Your task to perform on an android device: check the backup settings in the google photos Image 0: 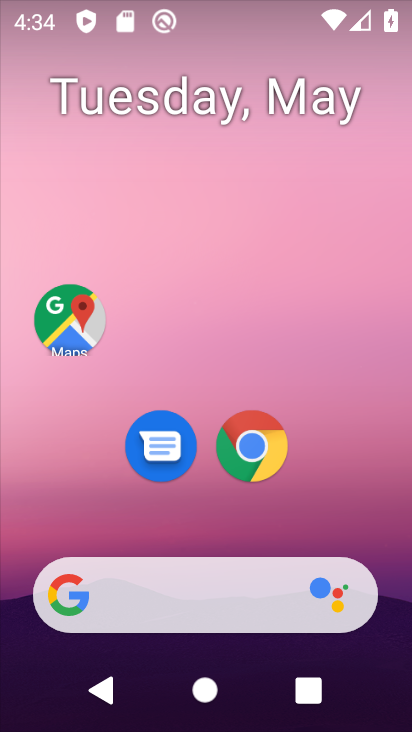
Step 0: drag from (246, 503) to (143, 43)
Your task to perform on an android device: check the backup settings in the google photos Image 1: 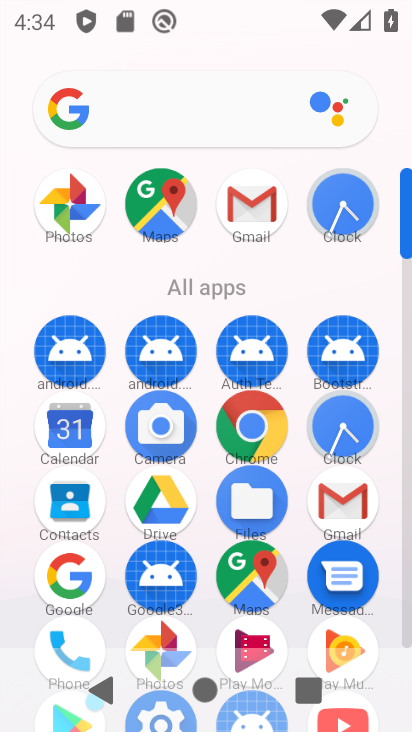
Step 1: click (400, 613)
Your task to perform on an android device: check the backup settings in the google photos Image 2: 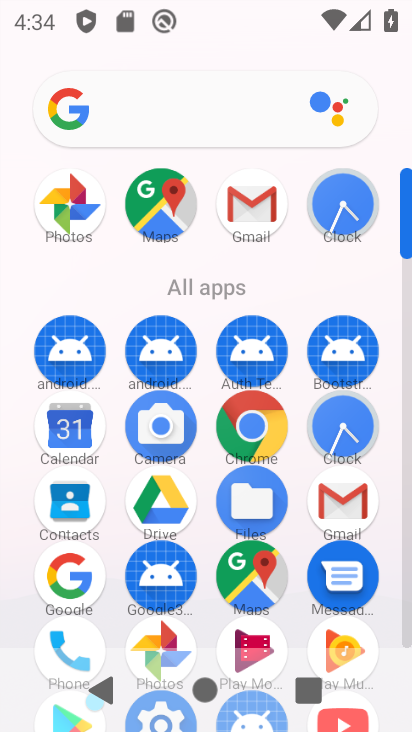
Step 2: click (410, 613)
Your task to perform on an android device: check the backup settings in the google photos Image 3: 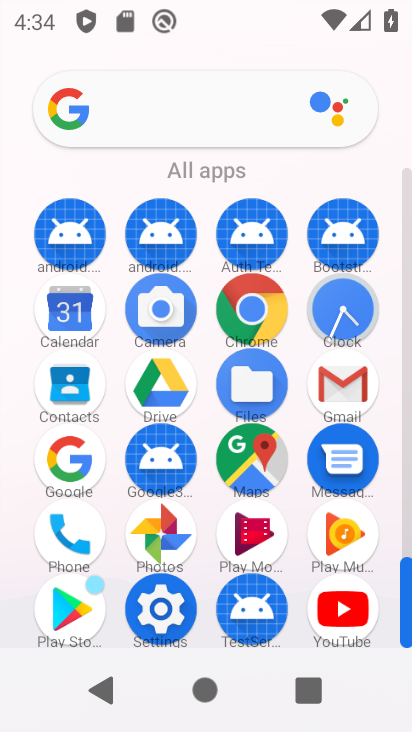
Step 3: click (166, 554)
Your task to perform on an android device: check the backup settings in the google photos Image 4: 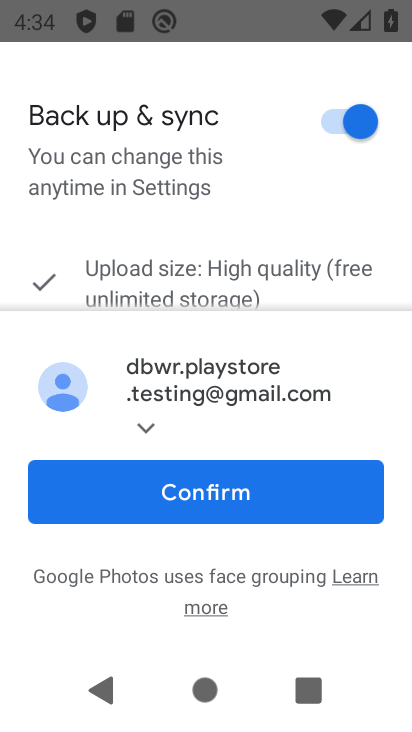
Step 4: click (169, 497)
Your task to perform on an android device: check the backup settings in the google photos Image 5: 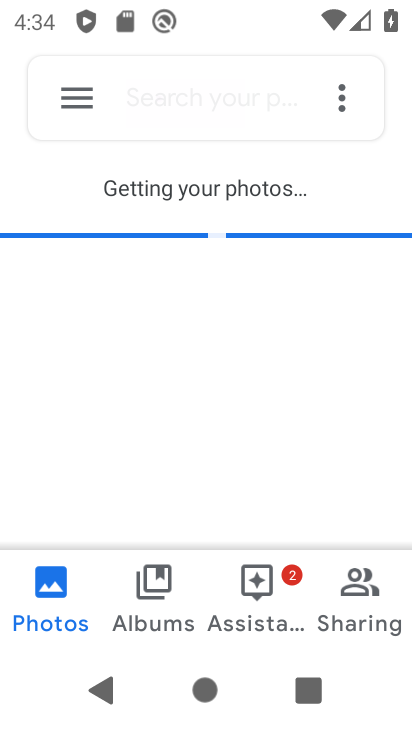
Step 5: click (90, 110)
Your task to perform on an android device: check the backup settings in the google photos Image 6: 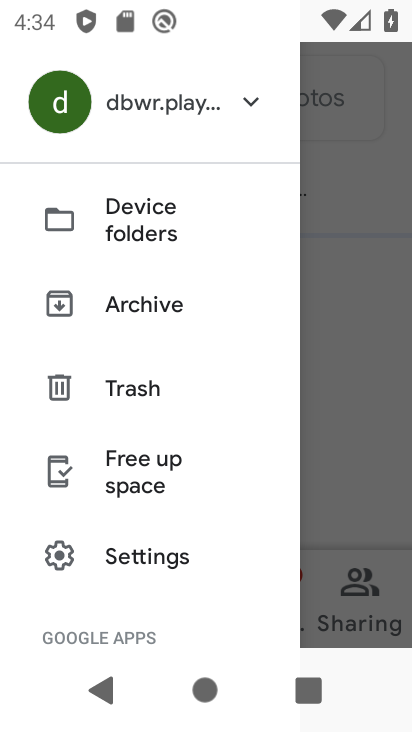
Step 6: click (144, 538)
Your task to perform on an android device: check the backup settings in the google photos Image 7: 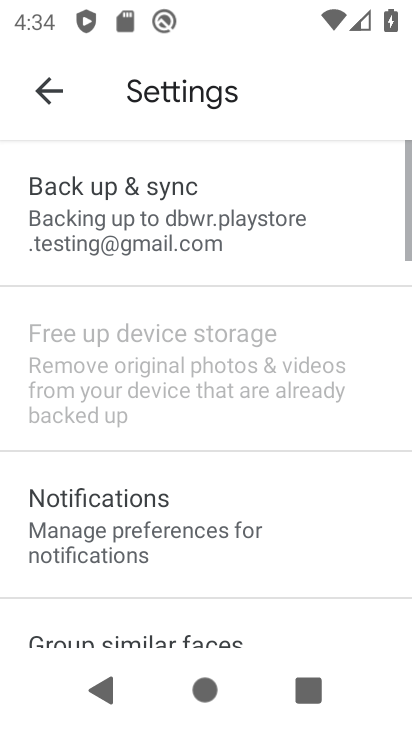
Step 7: click (179, 186)
Your task to perform on an android device: check the backup settings in the google photos Image 8: 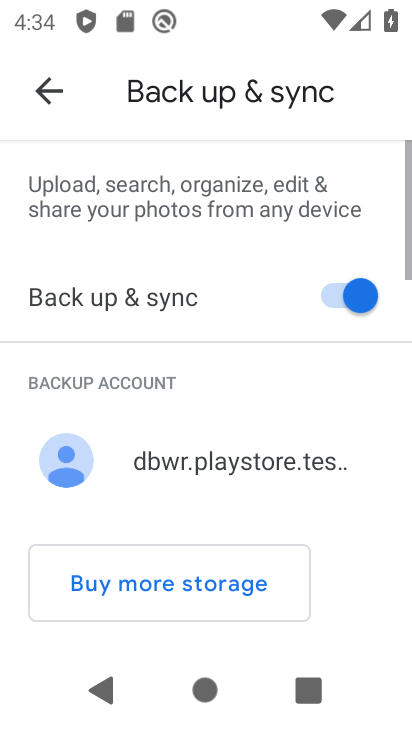
Step 8: drag from (137, 454) to (110, 129)
Your task to perform on an android device: check the backup settings in the google photos Image 9: 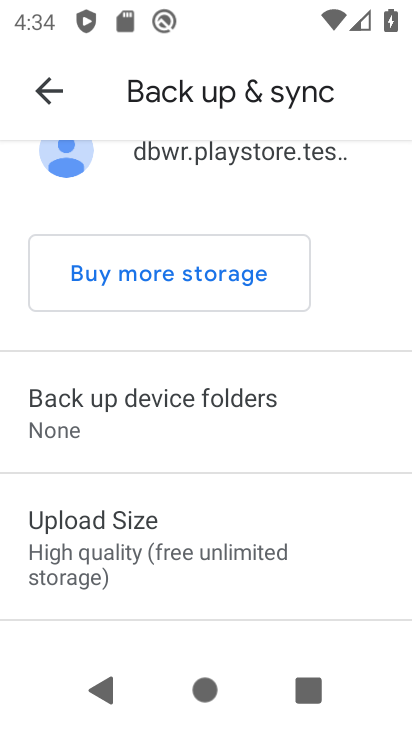
Step 9: click (195, 540)
Your task to perform on an android device: check the backup settings in the google photos Image 10: 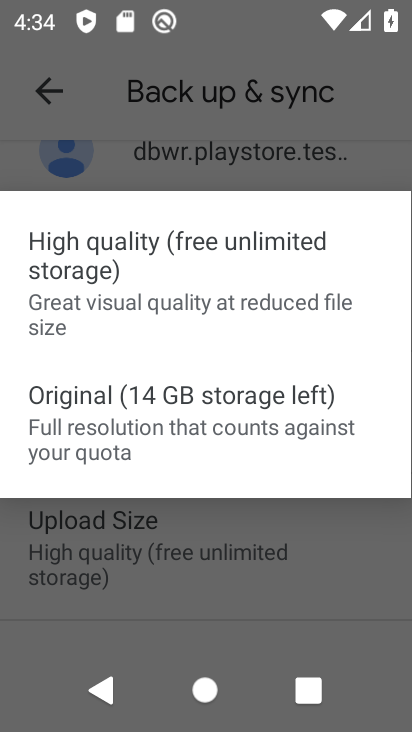
Step 10: click (199, 428)
Your task to perform on an android device: check the backup settings in the google photos Image 11: 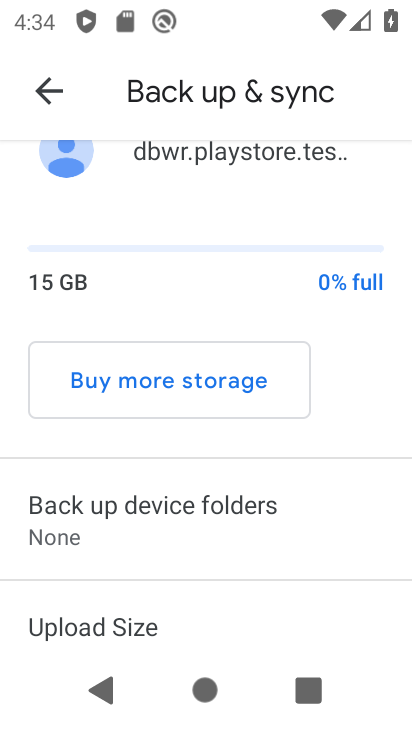
Step 11: task complete